Your task to perform on an android device: Open maps Image 0: 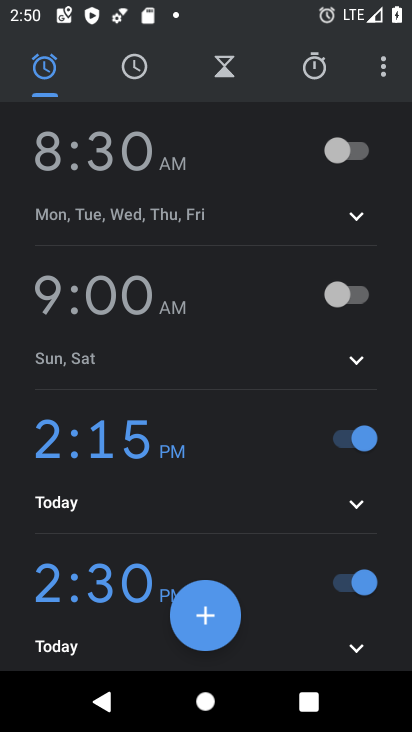
Step 0: press home button
Your task to perform on an android device: Open maps Image 1: 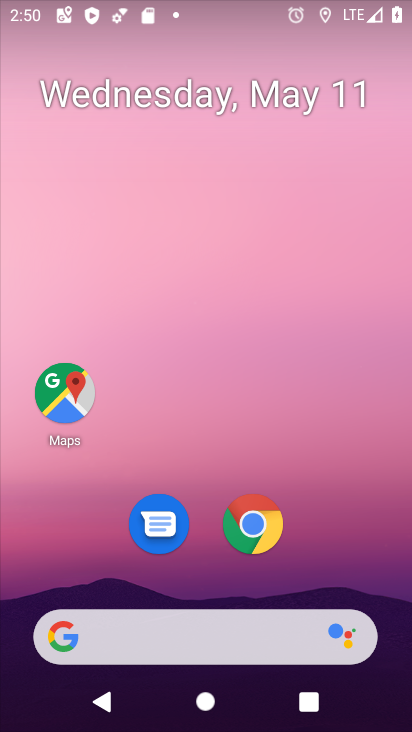
Step 1: click (56, 391)
Your task to perform on an android device: Open maps Image 2: 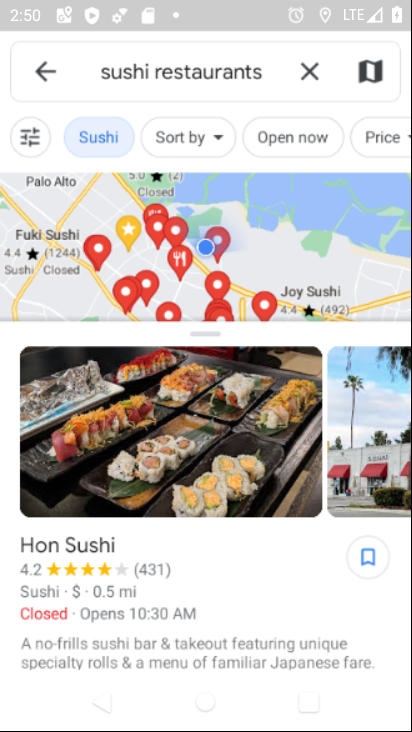
Step 2: click (309, 67)
Your task to perform on an android device: Open maps Image 3: 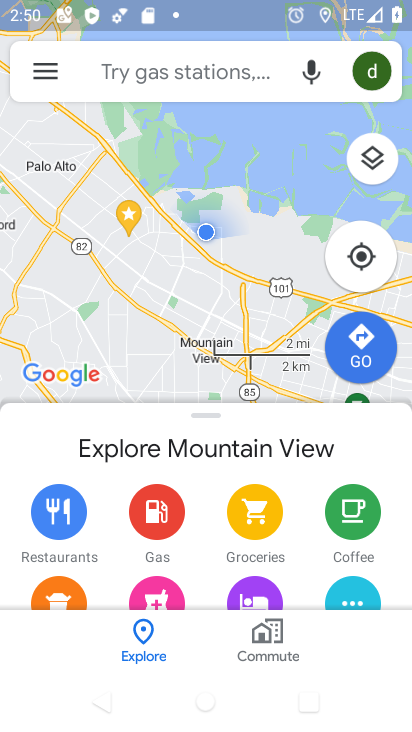
Step 3: task complete